Your task to perform on an android device: turn on priority inbox in the gmail app Image 0: 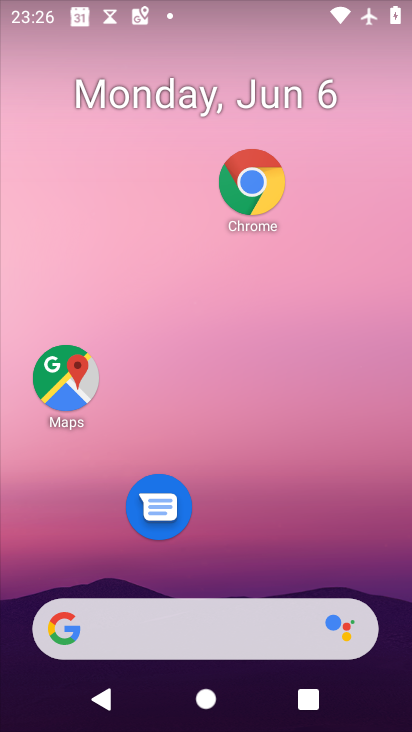
Step 0: drag from (240, 477) to (227, 284)
Your task to perform on an android device: turn on priority inbox in the gmail app Image 1: 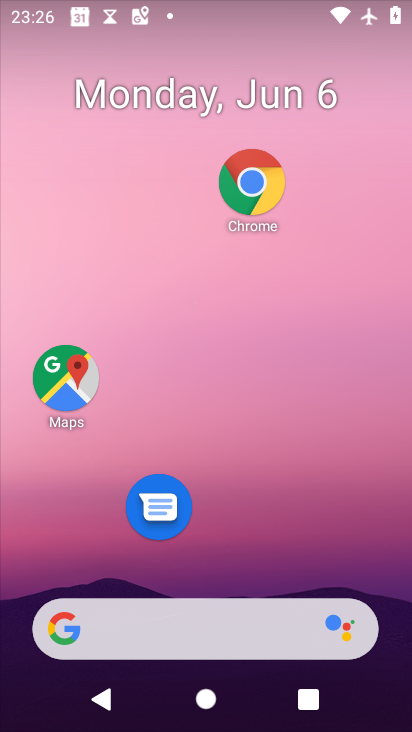
Step 1: drag from (230, 555) to (248, 313)
Your task to perform on an android device: turn on priority inbox in the gmail app Image 2: 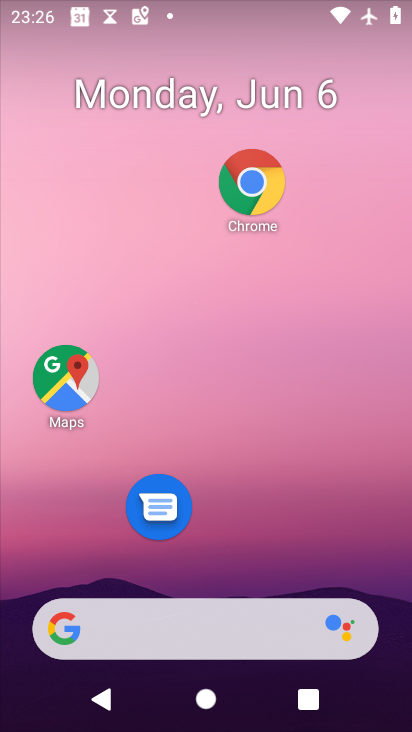
Step 2: drag from (243, 588) to (256, 284)
Your task to perform on an android device: turn on priority inbox in the gmail app Image 3: 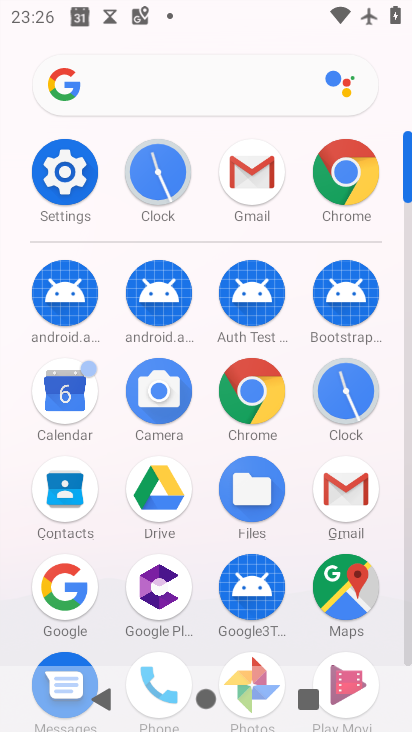
Step 3: click (258, 166)
Your task to perform on an android device: turn on priority inbox in the gmail app Image 4: 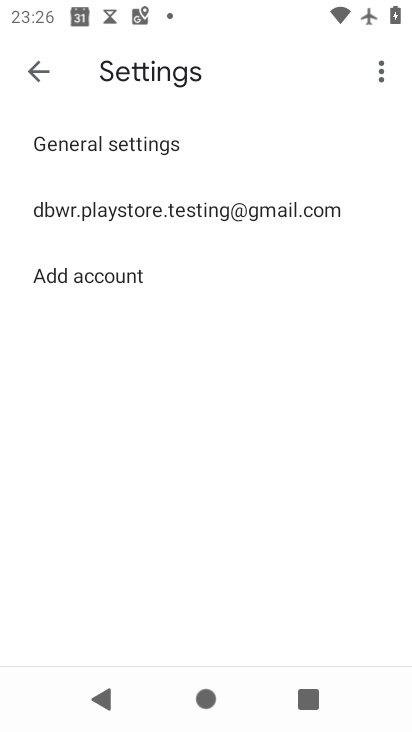
Step 4: click (36, 75)
Your task to perform on an android device: turn on priority inbox in the gmail app Image 5: 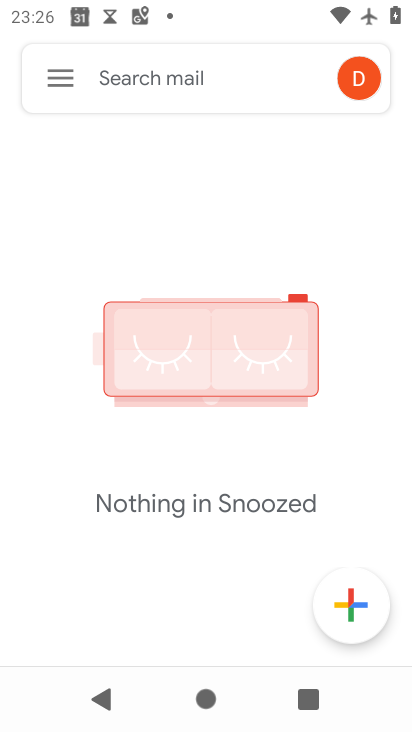
Step 5: click (66, 80)
Your task to perform on an android device: turn on priority inbox in the gmail app Image 6: 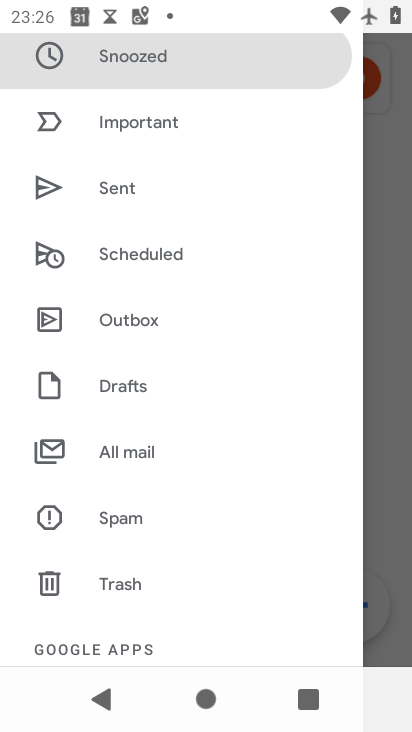
Step 6: drag from (143, 136) to (144, 499)
Your task to perform on an android device: turn on priority inbox in the gmail app Image 7: 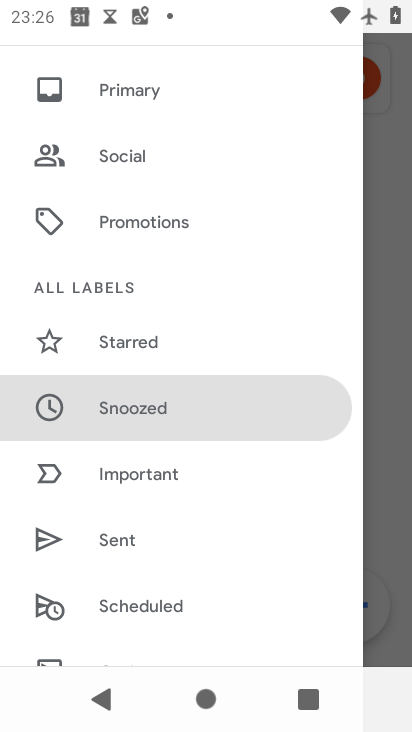
Step 7: drag from (138, 128) to (139, 460)
Your task to perform on an android device: turn on priority inbox in the gmail app Image 8: 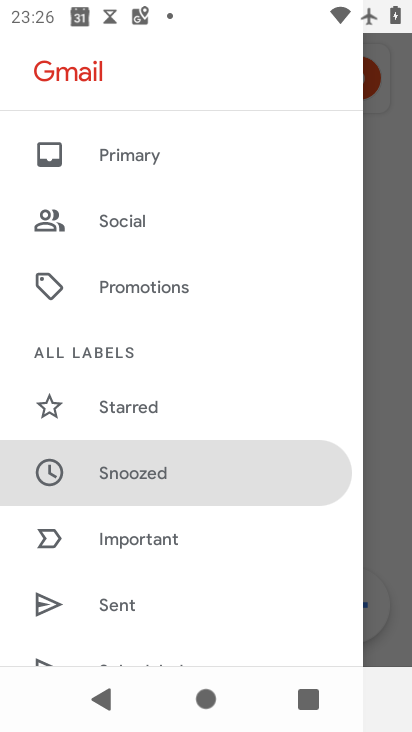
Step 8: drag from (116, 537) to (145, 184)
Your task to perform on an android device: turn on priority inbox in the gmail app Image 9: 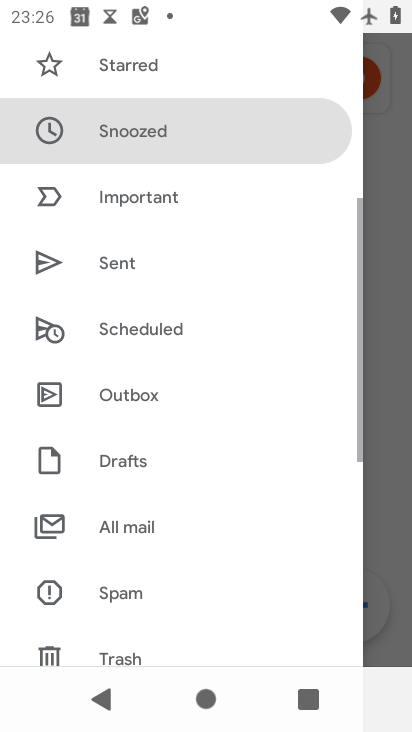
Step 9: drag from (121, 602) to (171, 248)
Your task to perform on an android device: turn on priority inbox in the gmail app Image 10: 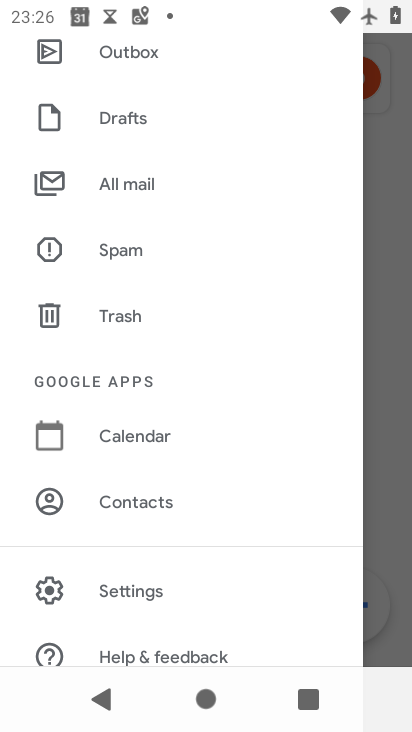
Step 10: click (139, 586)
Your task to perform on an android device: turn on priority inbox in the gmail app Image 11: 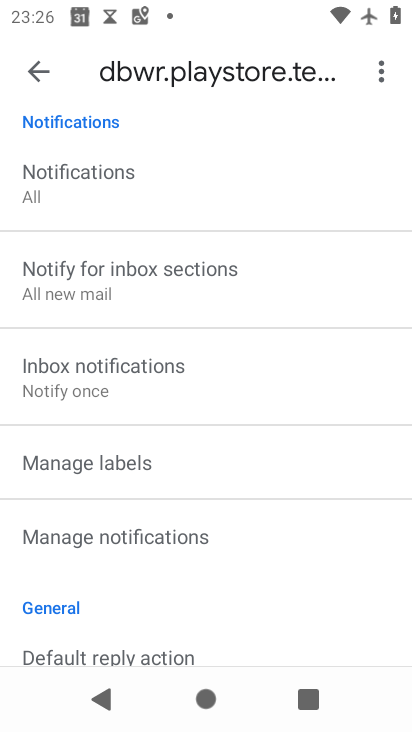
Step 11: drag from (121, 554) to (184, 592)
Your task to perform on an android device: turn on priority inbox in the gmail app Image 12: 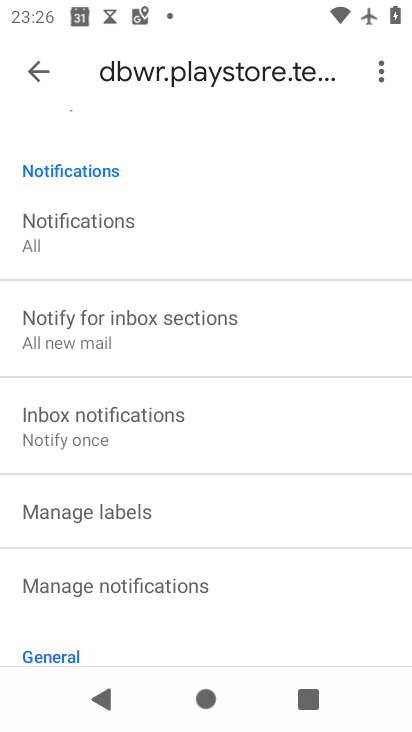
Step 12: drag from (179, 168) to (153, 476)
Your task to perform on an android device: turn on priority inbox in the gmail app Image 13: 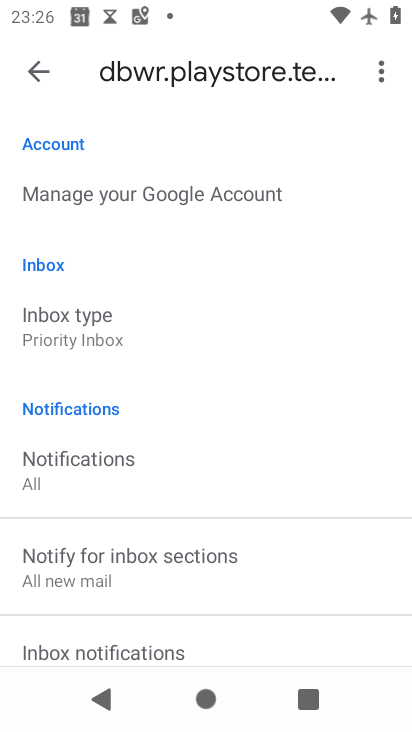
Step 13: click (100, 325)
Your task to perform on an android device: turn on priority inbox in the gmail app Image 14: 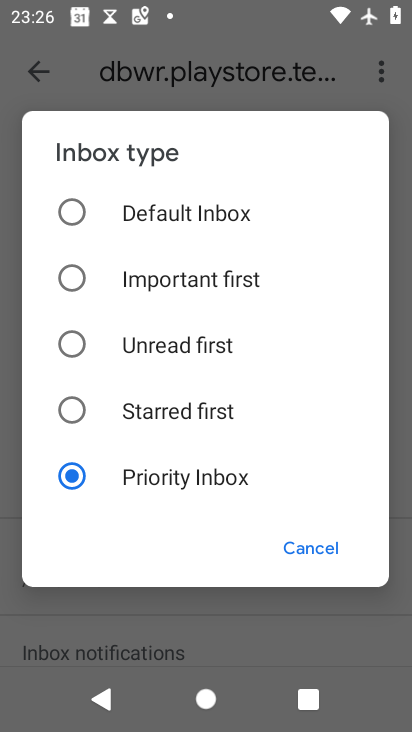
Step 14: click (299, 540)
Your task to perform on an android device: turn on priority inbox in the gmail app Image 15: 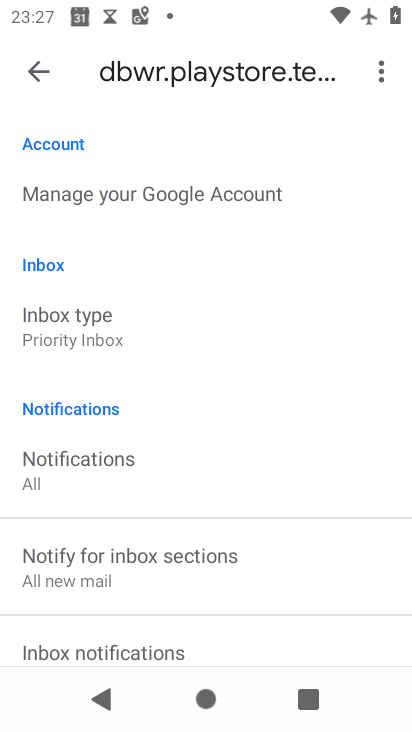
Step 15: task complete